Your task to perform on an android device: Set the phone to "Do not disturb". Image 0: 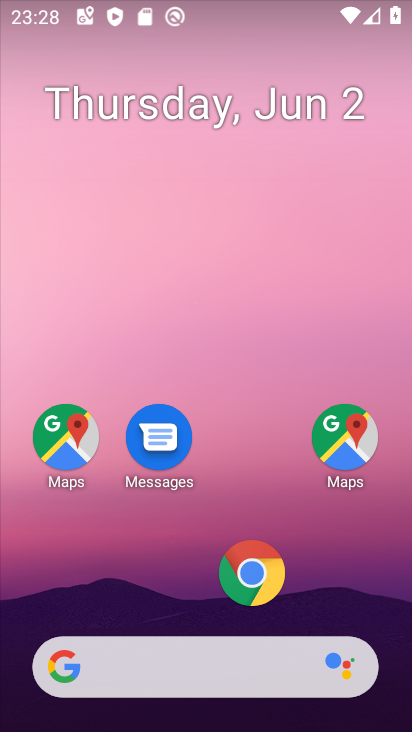
Step 0: drag from (197, 525) to (224, 217)
Your task to perform on an android device: Set the phone to "Do not disturb". Image 1: 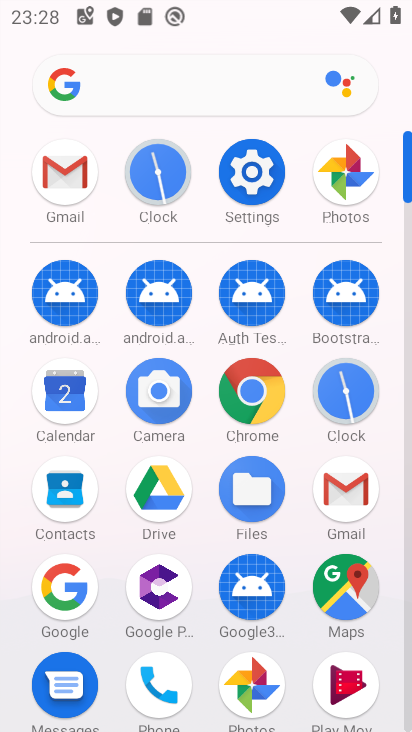
Step 1: click (248, 181)
Your task to perform on an android device: Set the phone to "Do not disturb". Image 2: 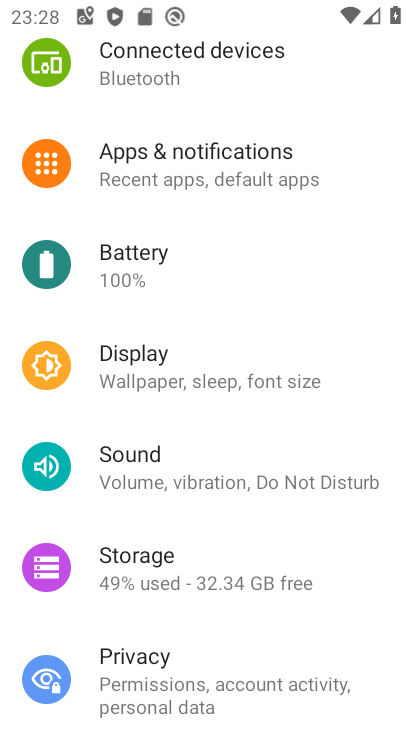
Step 2: click (180, 453)
Your task to perform on an android device: Set the phone to "Do not disturb". Image 3: 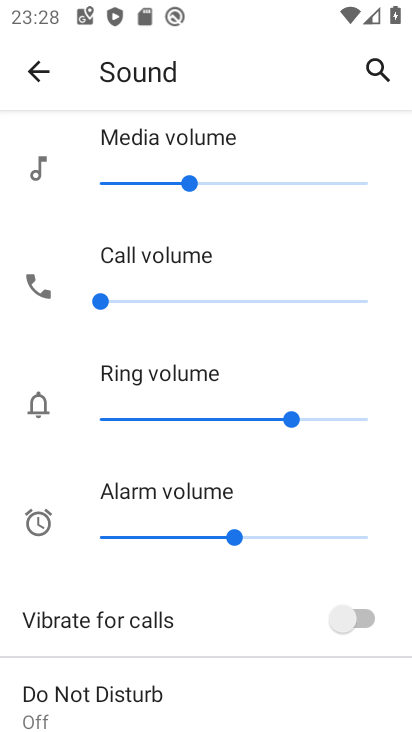
Step 3: click (204, 707)
Your task to perform on an android device: Set the phone to "Do not disturb". Image 4: 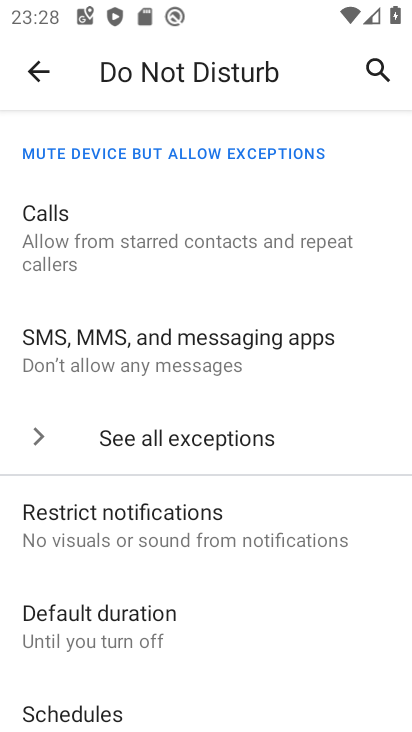
Step 4: drag from (247, 565) to (214, 378)
Your task to perform on an android device: Set the phone to "Do not disturb". Image 5: 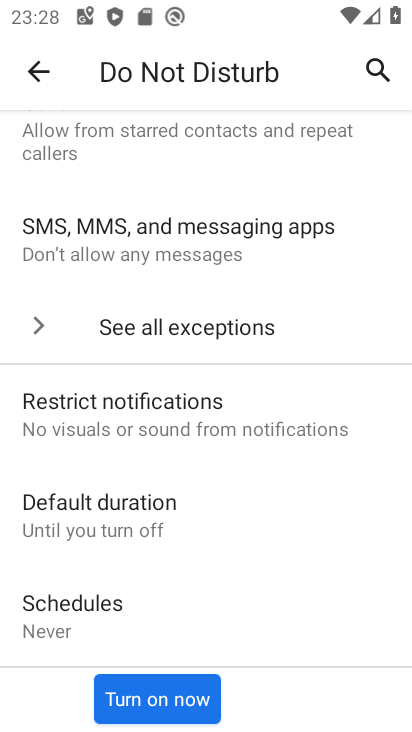
Step 5: click (125, 706)
Your task to perform on an android device: Set the phone to "Do not disturb". Image 6: 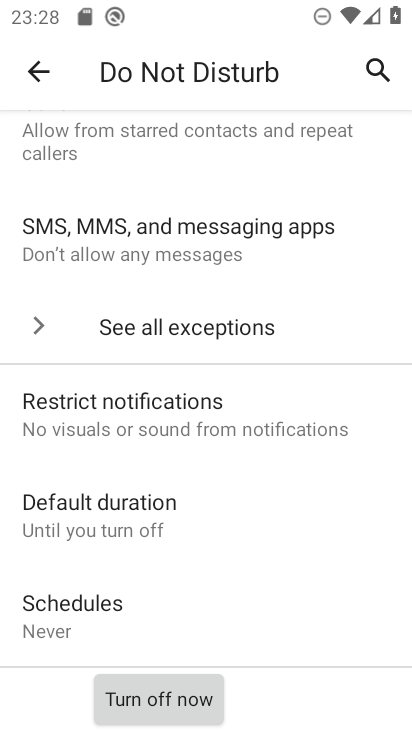
Step 6: task complete